Your task to perform on an android device: toggle javascript in the chrome app Image 0: 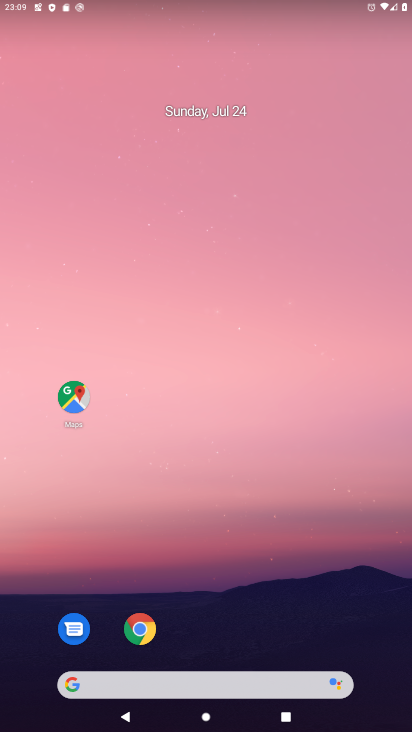
Step 0: drag from (197, 604) to (202, 0)
Your task to perform on an android device: toggle javascript in the chrome app Image 1: 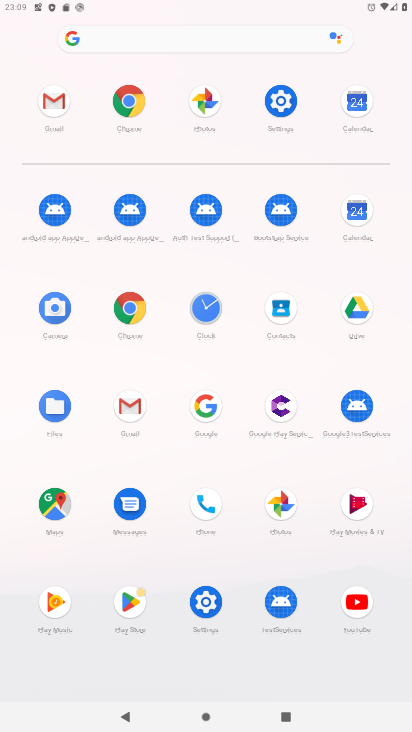
Step 1: click (129, 318)
Your task to perform on an android device: toggle javascript in the chrome app Image 2: 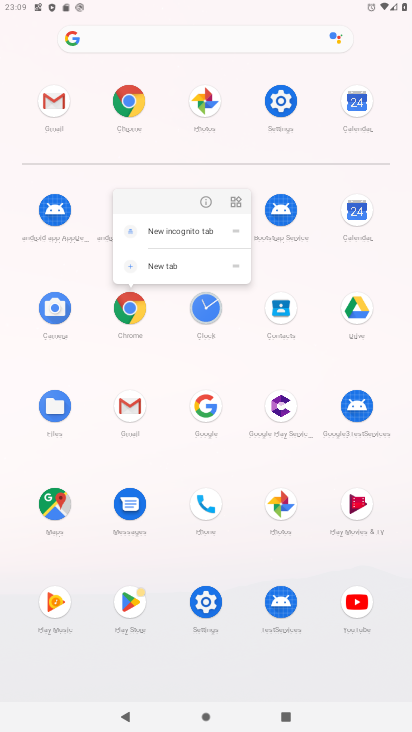
Step 2: click (202, 198)
Your task to perform on an android device: toggle javascript in the chrome app Image 3: 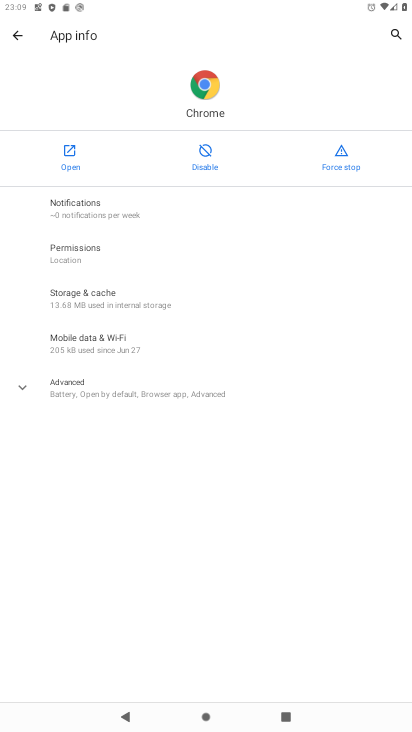
Step 3: click (74, 150)
Your task to perform on an android device: toggle javascript in the chrome app Image 4: 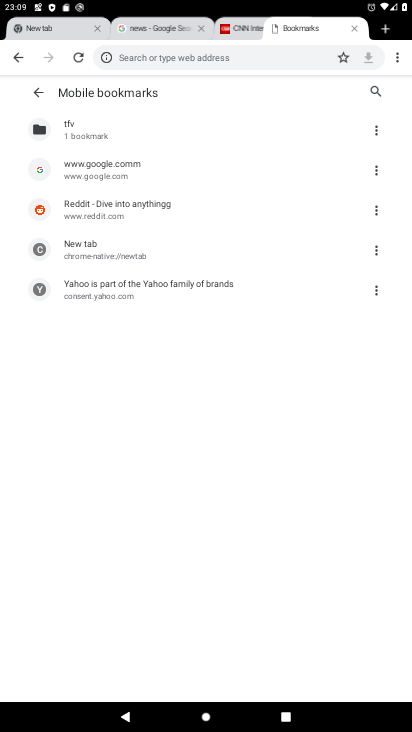
Step 4: drag from (396, 54) to (290, 258)
Your task to perform on an android device: toggle javascript in the chrome app Image 5: 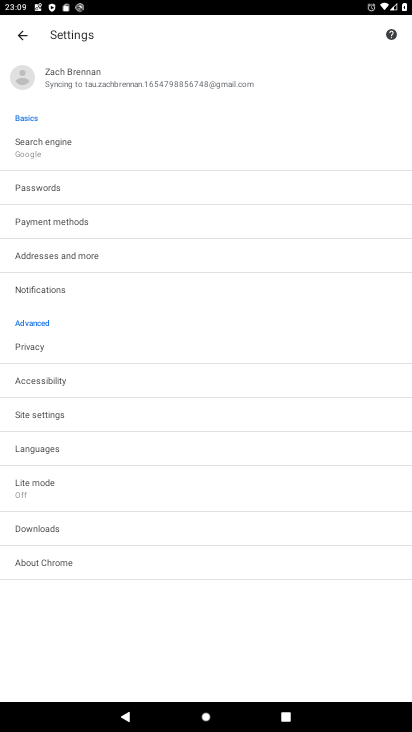
Step 5: click (67, 416)
Your task to perform on an android device: toggle javascript in the chrome app Image 6: 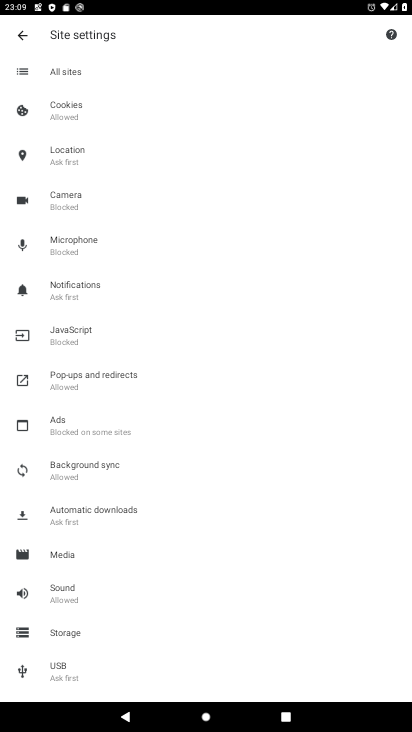
Step 6: click (74, 327)
Your task to perform on an android device: toggle javascript in the chrome app Image 7: 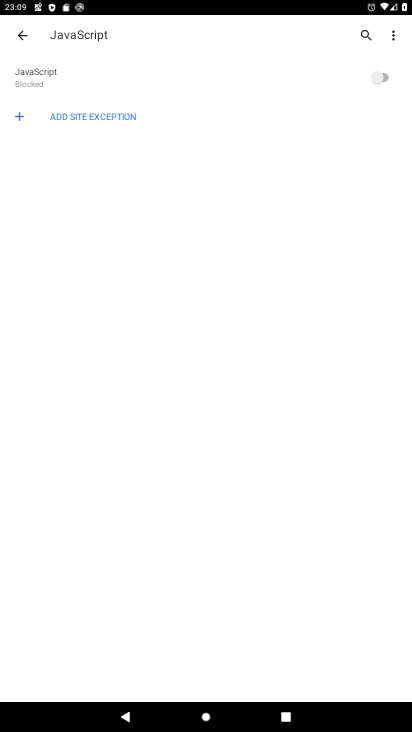
Step 7: drag from (162, 378) to (203, 209)
Your task to perform on an android device: toggle javascript in the chrome app Image 8: 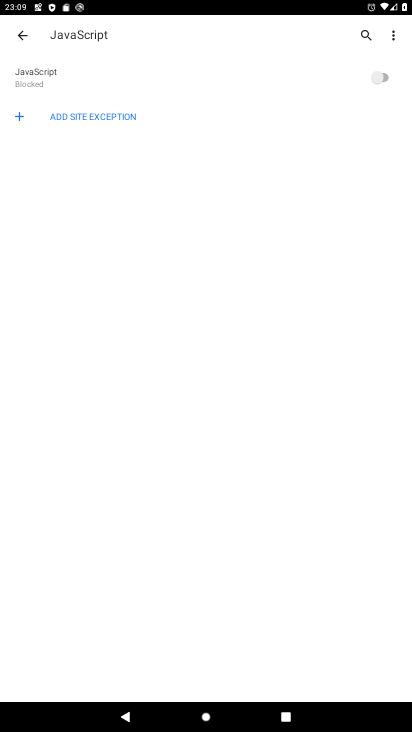
Step 8: click (313, 74)
Your task to perform on an android device: toggle javascript in the chrome app Image 9: 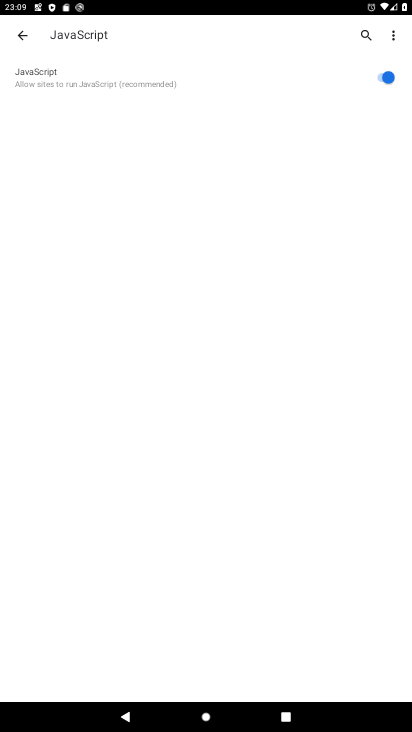
Step 9: task complete